Your task to perform on an android device: empty trash in google photos Image 0: 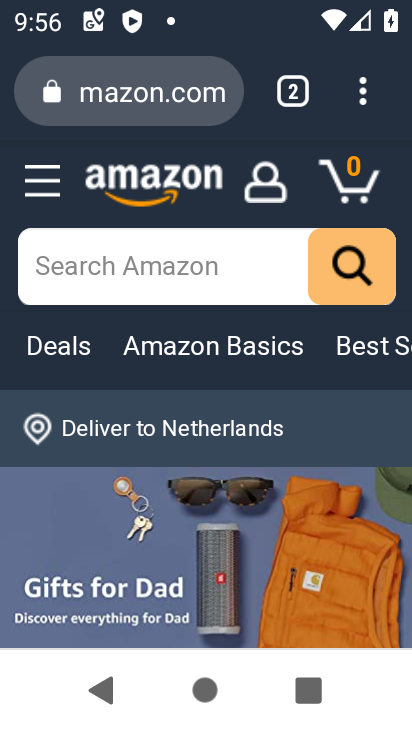
Step 0: press home button
Your task to perform on an android device: empty trash in google photos Image 1: 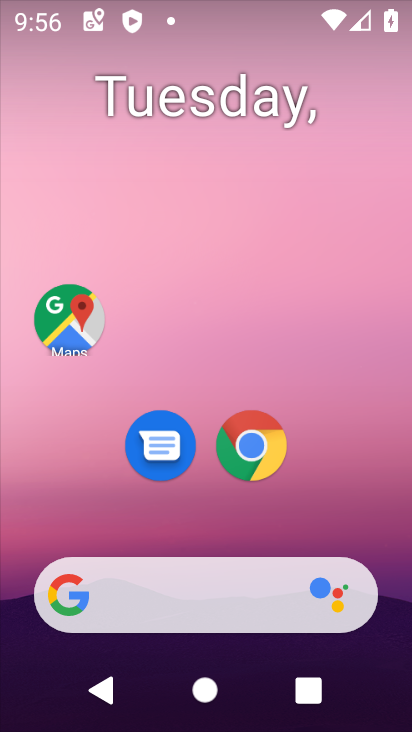
Step 1: drag from (389, 566) to (338, 181)
Your task to perform on an android device: empty trash in google photos Image 2: 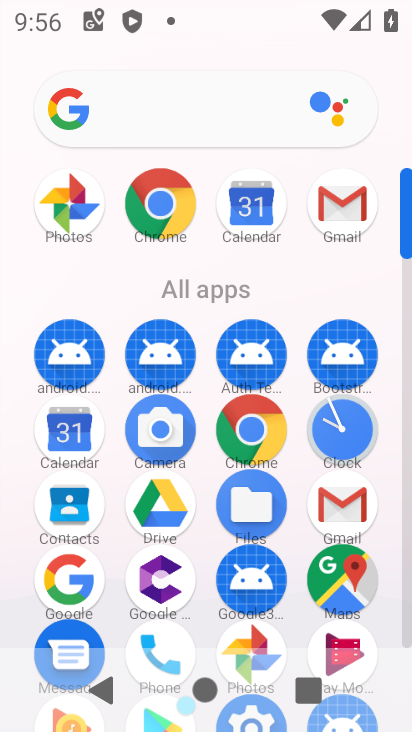
Step 2: click (54, 201)
Your task to perform on an android device: empty trash in google photos Image 3: 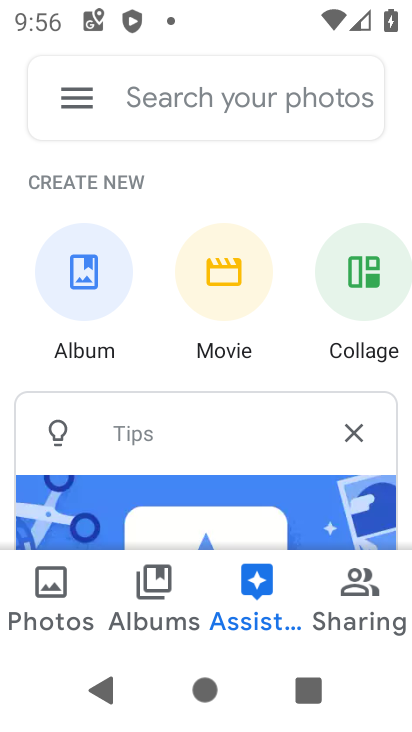
Step 3: click (82, 111)
Your task to perform on an android device: empty trash in google photos Image 4: 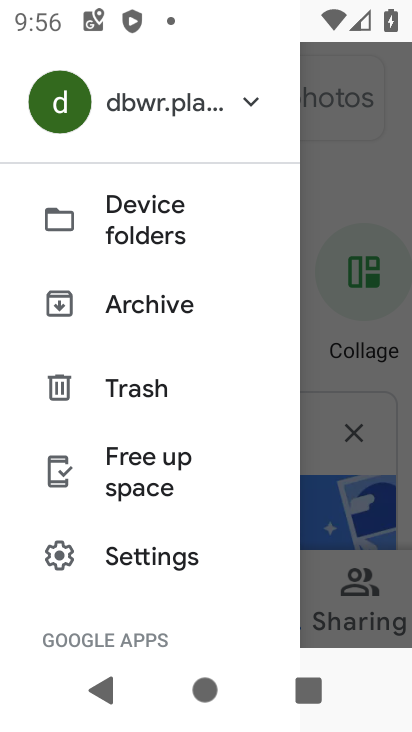
Step 4: click (103, 415)
Your task to perform on an android device: empty trash in google photos Image 5: 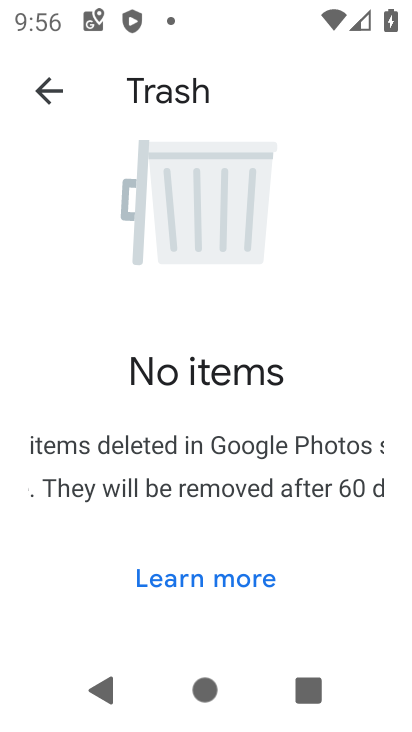
Step 5: task complete